Your task to perform on an android device: Search for the best selling phone on AliExpress Image 0: 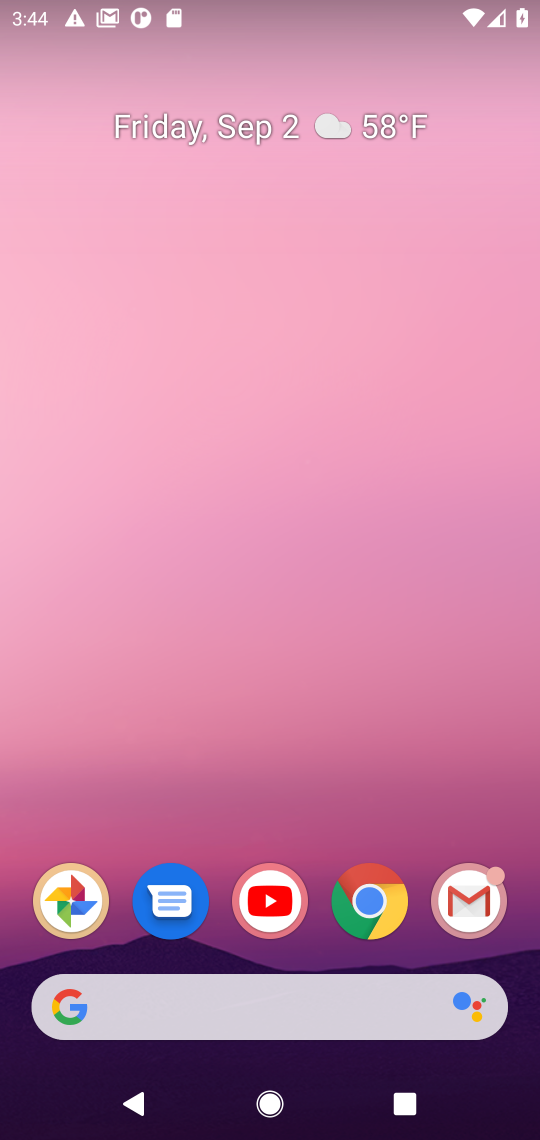
Step 0: drag from (326, 764) to (274, 23)
Your task to perform on an android device: Search for the best selling phone on AliExpress Image 1: 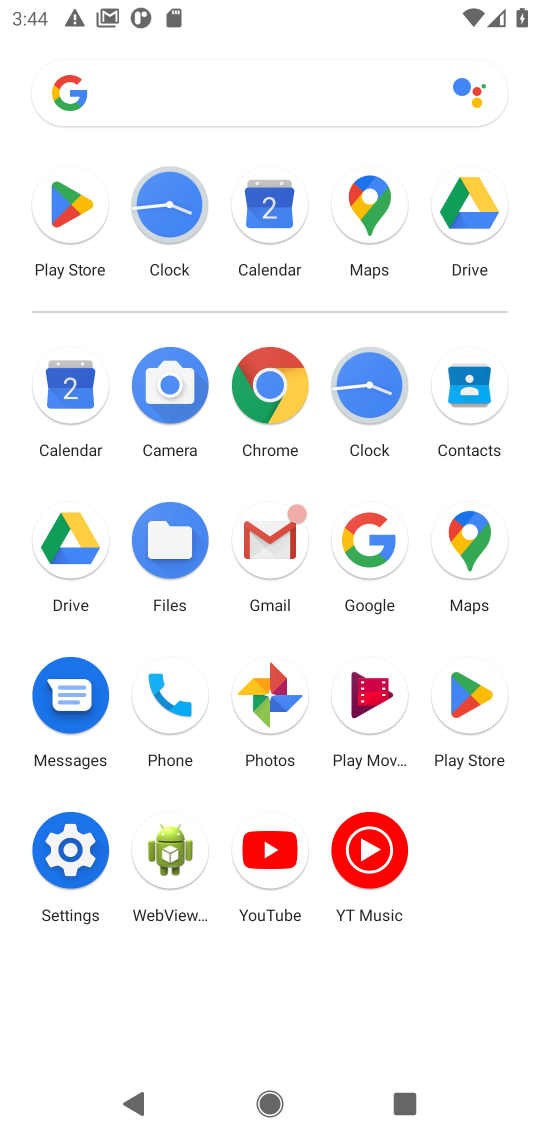
Step 1: click (281, 389)
Your task to perform on an android device: Search for the best selling phone on AliExpress Image 2: 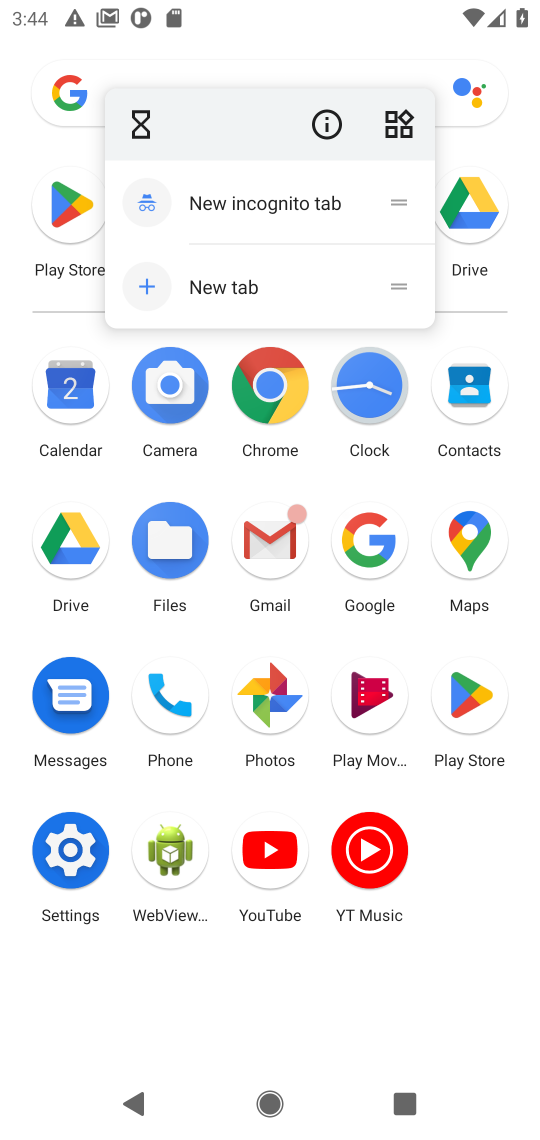
Step 2: click (266, 389)
Your task to perform on an android device: Search for the best selling phone on AliExpress Image 3: 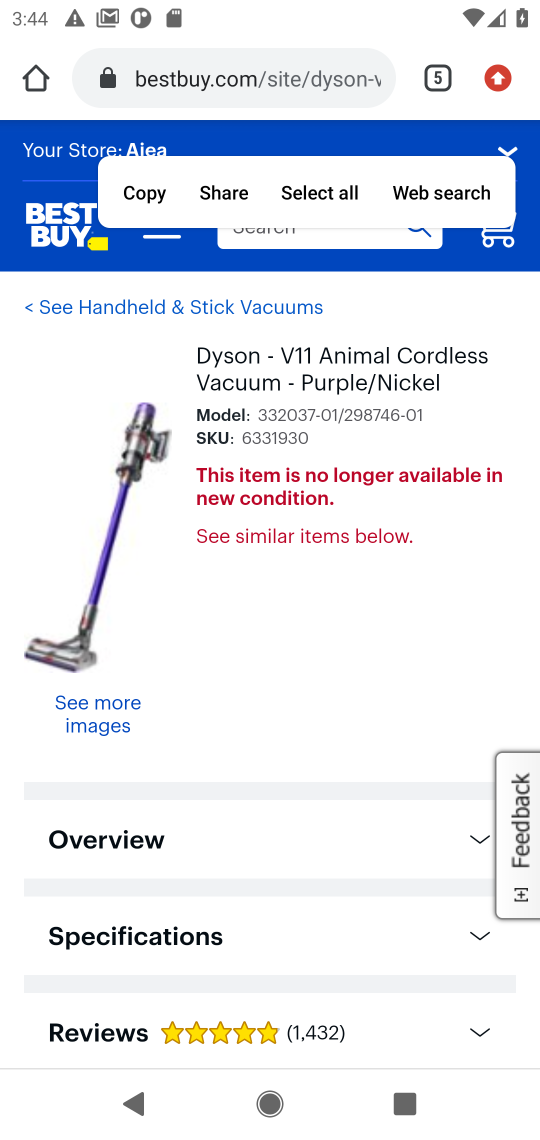
Step 3: click (336, 65)
Your task to perform on an android device: Search for the best selling phone on AliExpress Image 4: 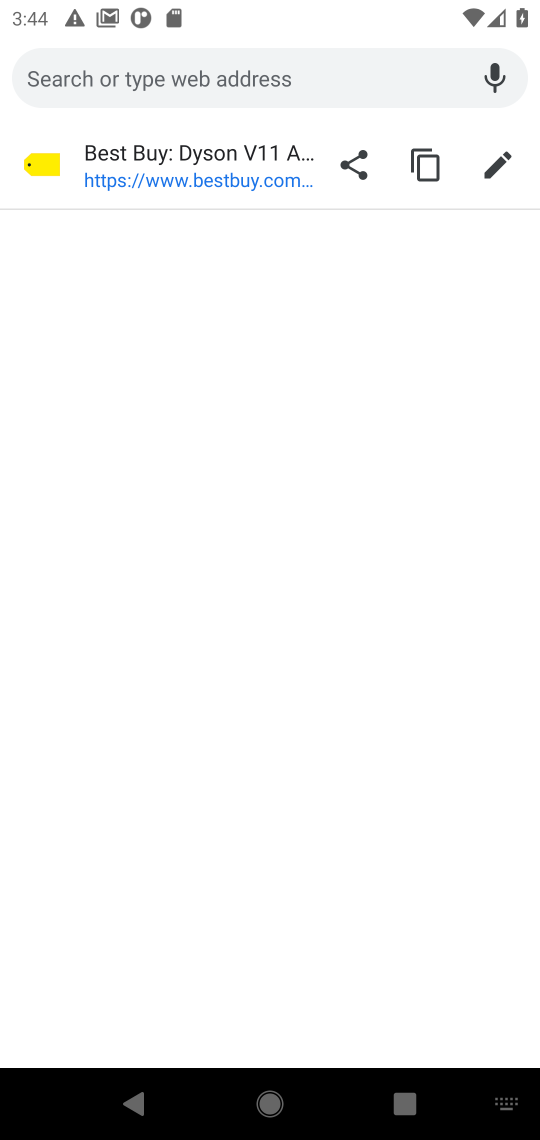
Step 4: type "best selling phone on AliExpress"
Your task to perform on an android device: Search for the best selling phone on AliExpress Image 5: 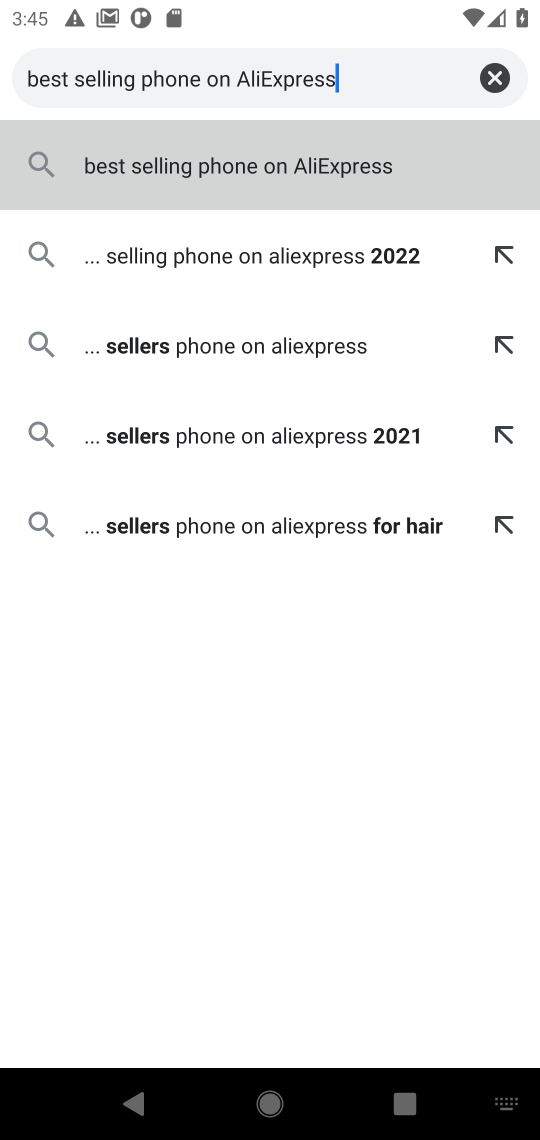
Step 5: press enter
Your task to perform on an android device: Search for the best selling phone on AliExpress Image 6: 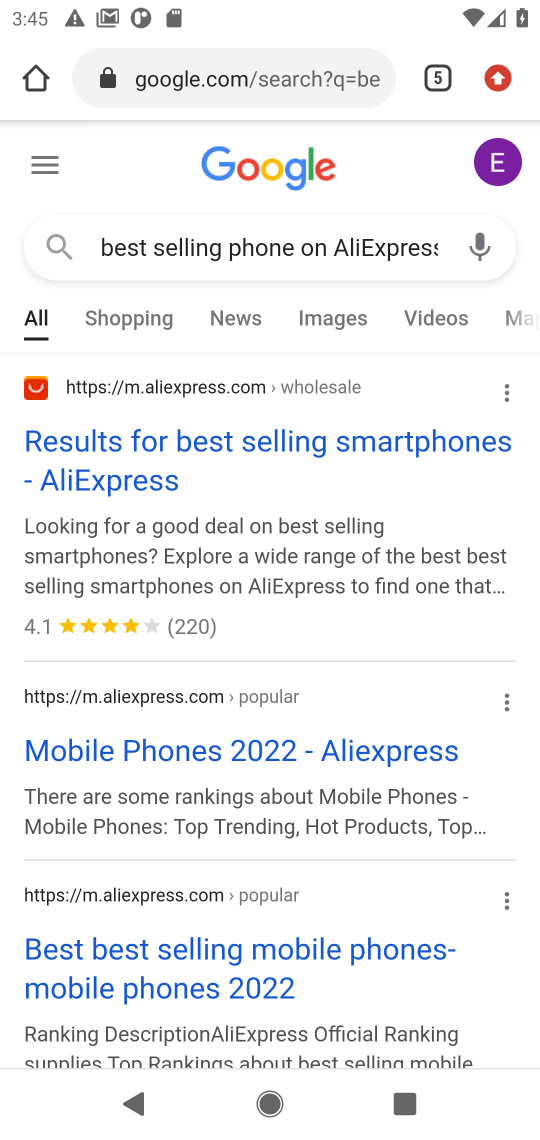
Step 6: click (322, 432)
Your task to perform on an android device: Search for the best selling phone on AliExpress Image 7: 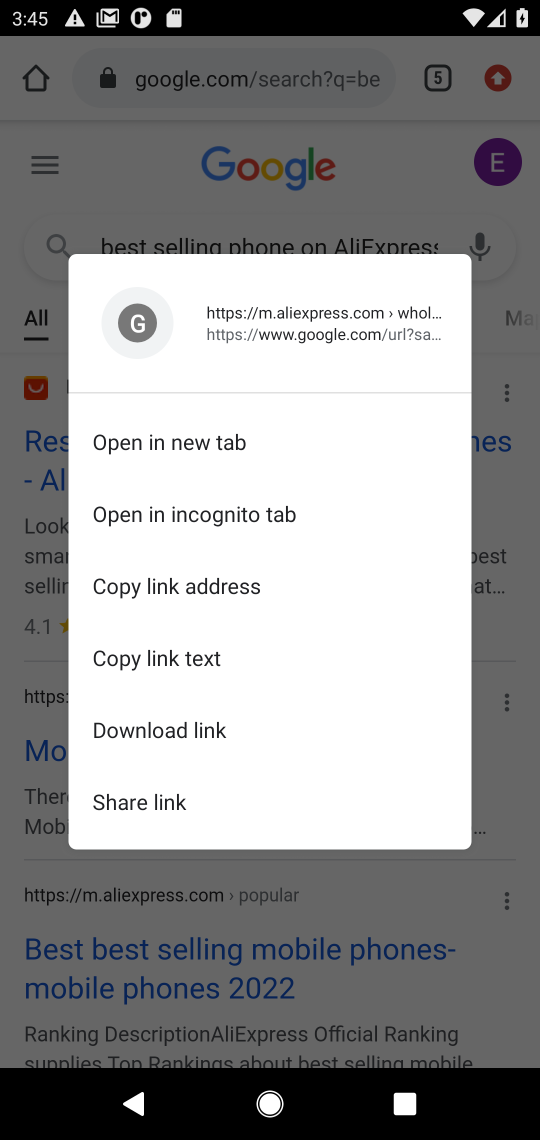
Step 7: click (284, 199)
Your task to perform on an android device: Search for the best selling phone on AliExpress Image 8: 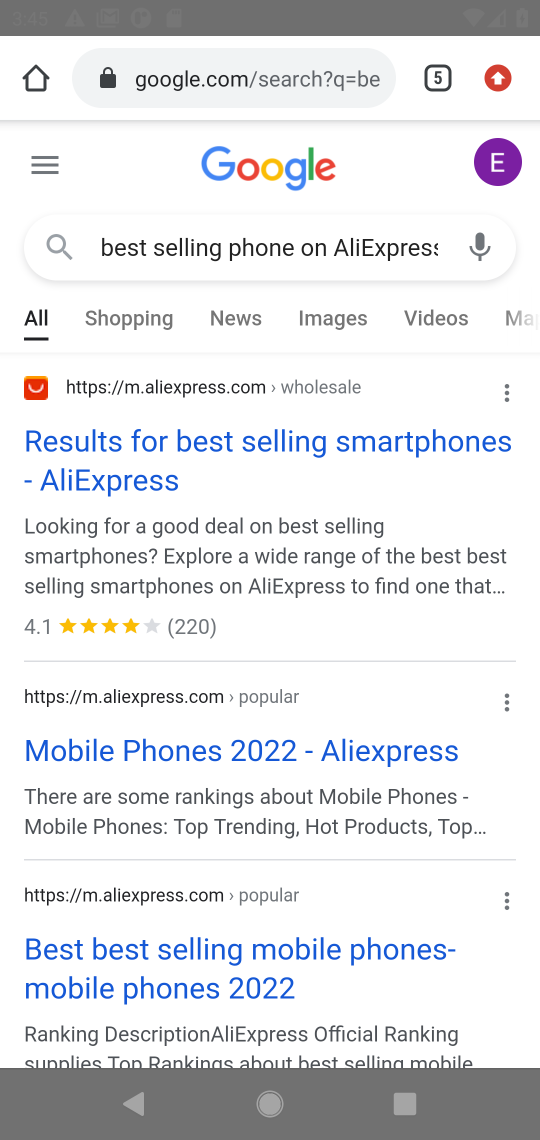
Step 8: click (121, 444)
Your task to perform on an android device: Search for the best selling phone on AliExpress Image 9: 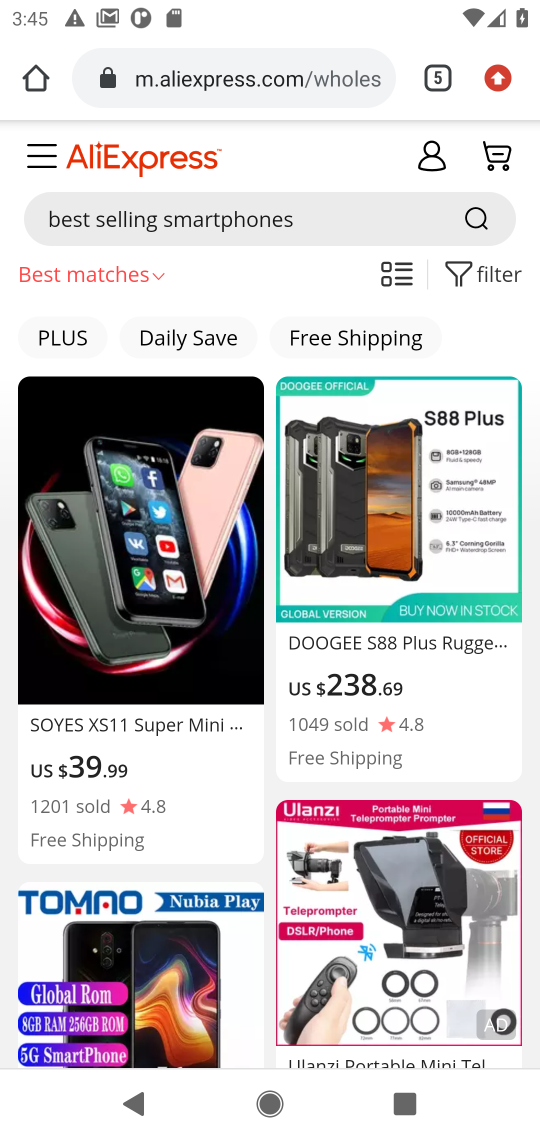
Step 9: task complete